Your task to perform on an android device: Open the web browser Image 0: 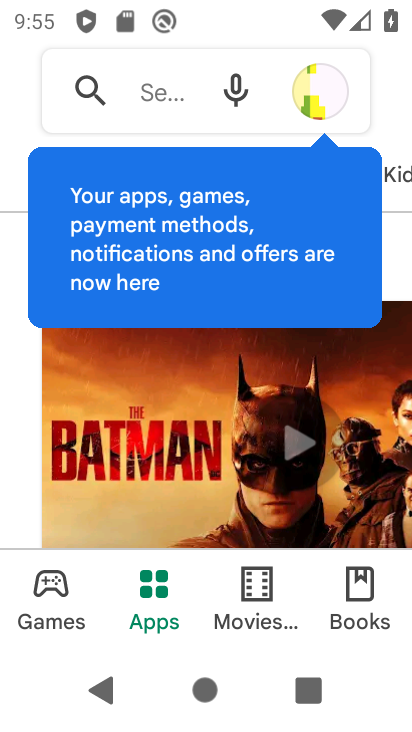
Step 0: press home button
Your task to perform on an android device: Open the web browser Image 1: 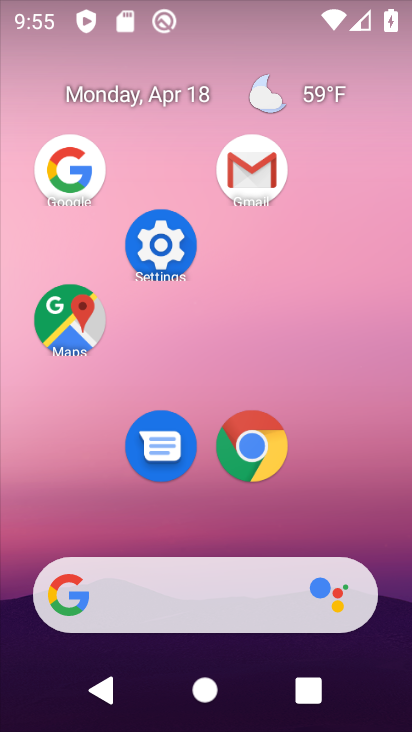
Step 1: click (269, 442)
Your task to perform on an android device: Open the web browser Image 2: 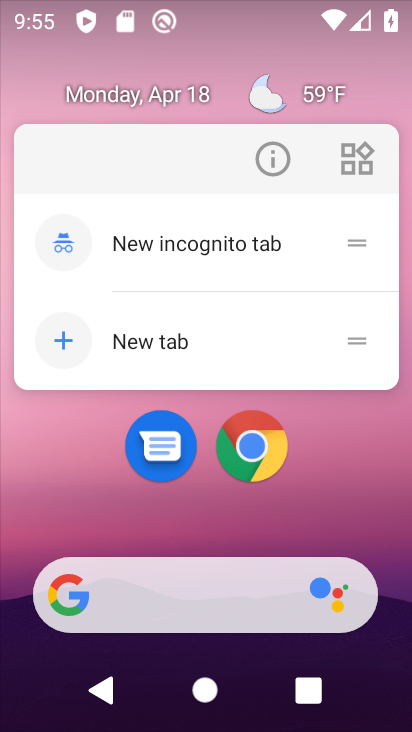
Step 2: click (245, 472)
Your task to perform on an android device: Open the web browser Image 3: 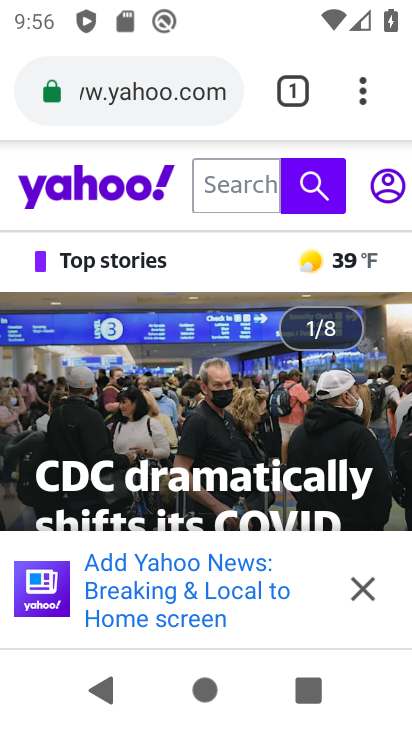
Step 3: task complete